Your task to perform on an android device: turn on data saver in the chrome app Image 0: 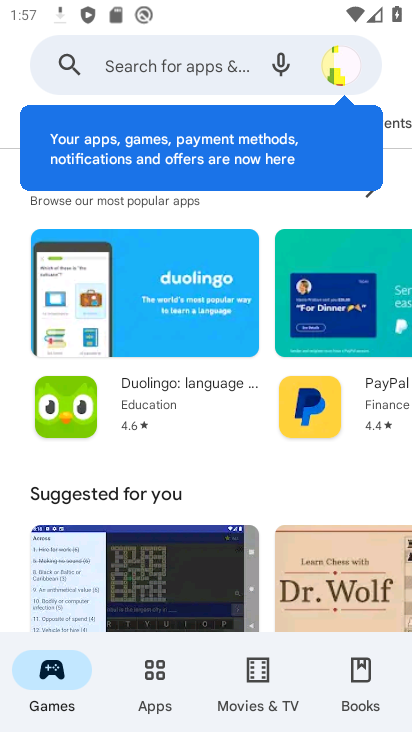
Step 0: press home button
Your task to perform on an android device: turn on data saver in the chrome app Image 1: 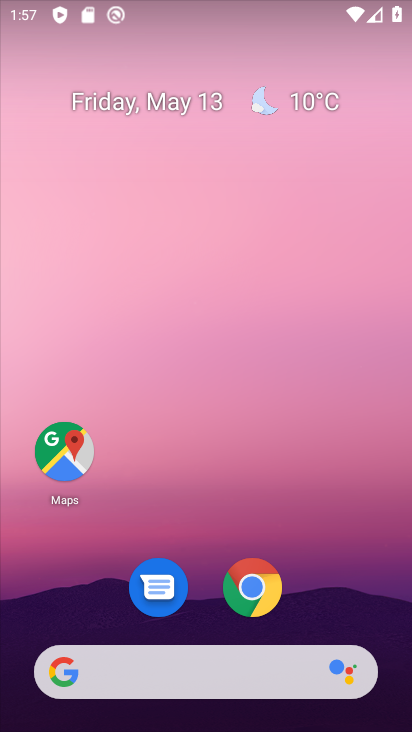
Step 1: click (253, 591)
Your task to perform on an android device: turn on data saver in the chrome app Image 2: 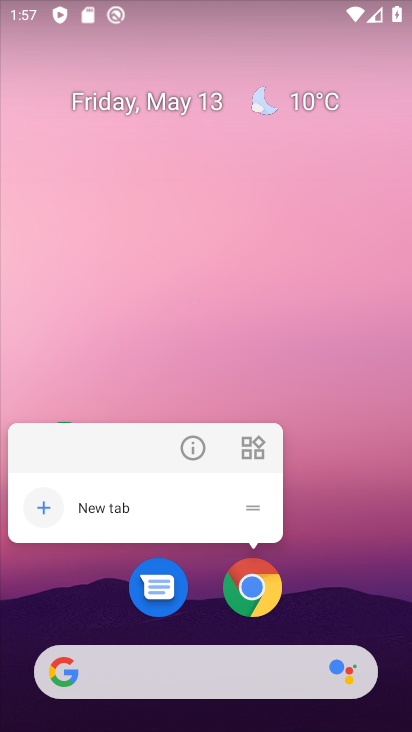
Step 2: click (253, 591)
Your task to perform on an android device: turn on data saver in the chrome app Image 3: 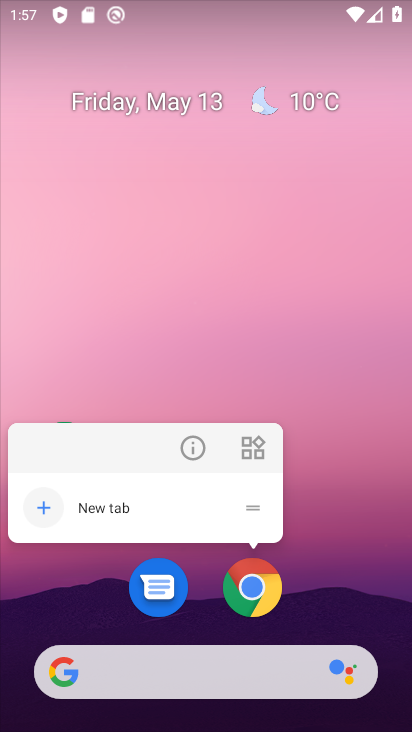
Step 3: click (253, 591)
Your task to perform on an android device: turn on data saver in the chrome app Image 4: 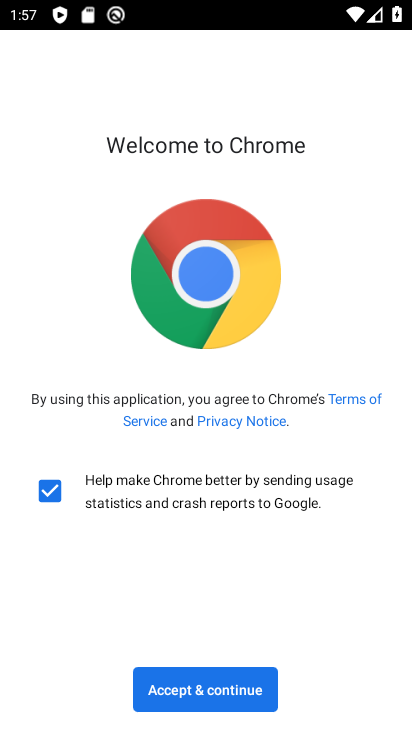
Step 4: click (200, 689)
Your task to perform on an android device: turn on data saver in the chrome app Image 5: 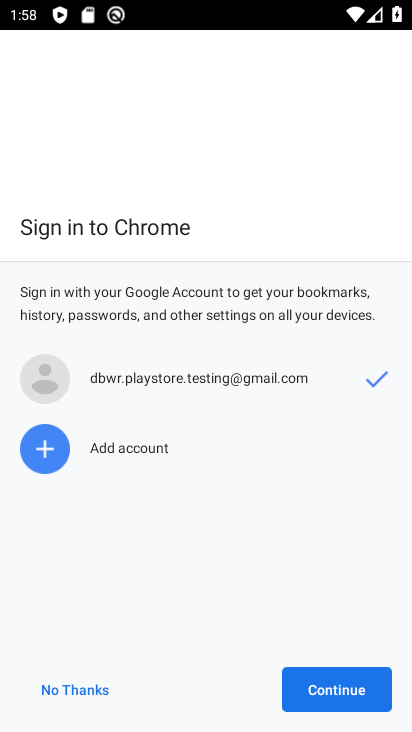
Step 5: click (348, 679)
Your task to perform on an android device: turn on data saver in the chrome app Image 6: 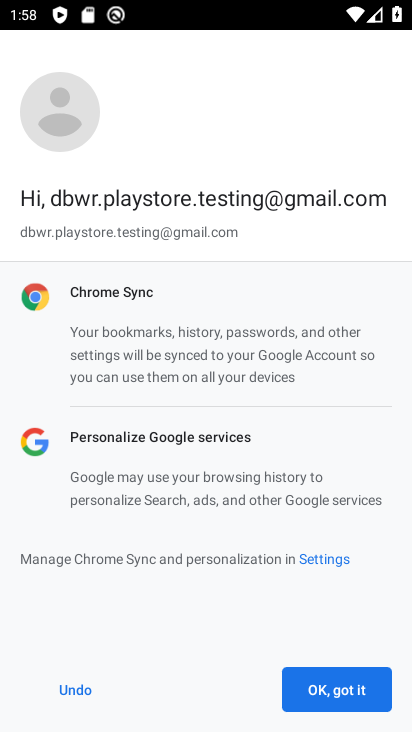
Step 6: click (330, 688)
Your task to perform on an android device: turn on data saver in the chrome app Image 7: 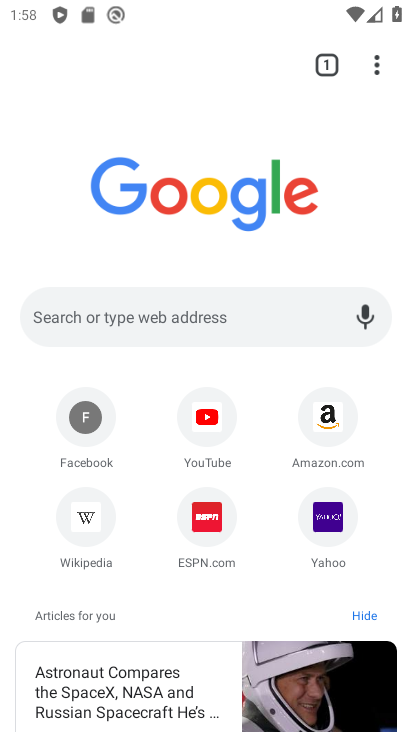
Step 7: click (372, 66)
Your task to perform on an android device: turn on data saver in the chrome app Image 8: 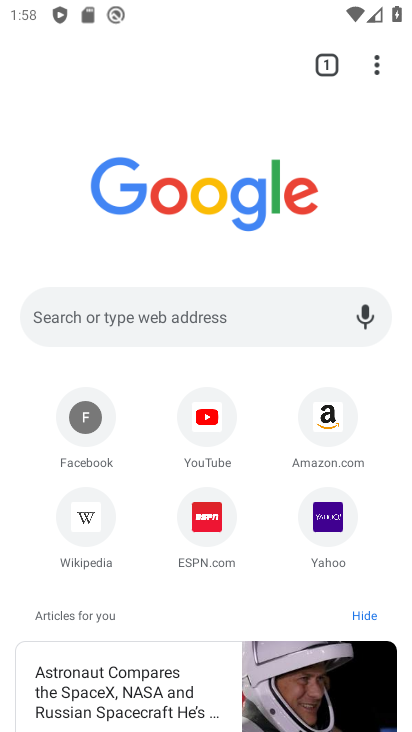
Step 8: click (375, 62)
Your task to perform on an android device: turn on data saver in the chrome app Image 9: 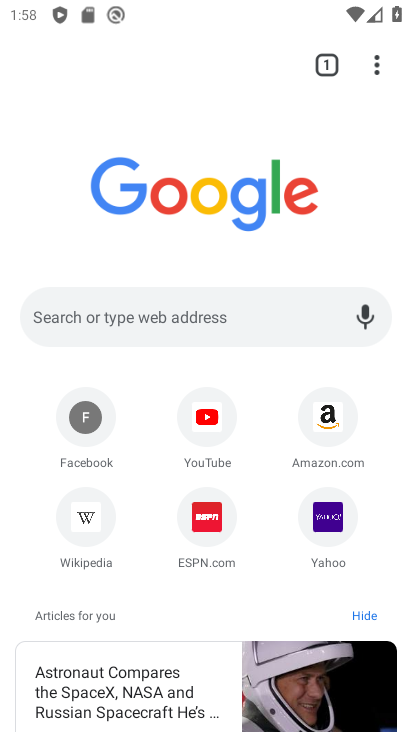
Step 9: click (375, 62)
Your task to perform on an android device: turn on data saver in the chrome app Image 10: 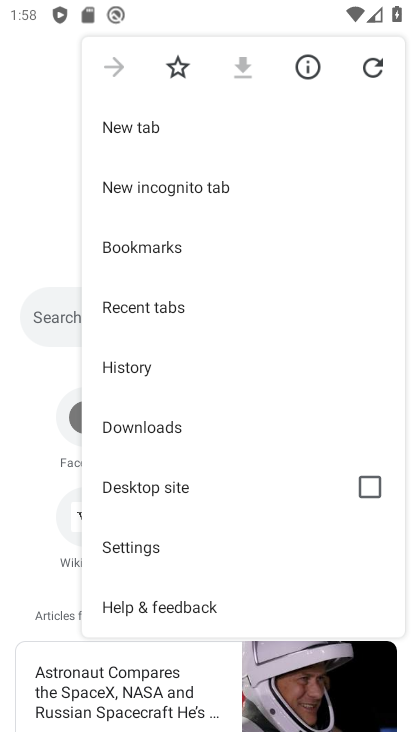
Step 10: click (143, 549)
Your task to perform on an android device: turn on data saver in the chrome app Image 11: 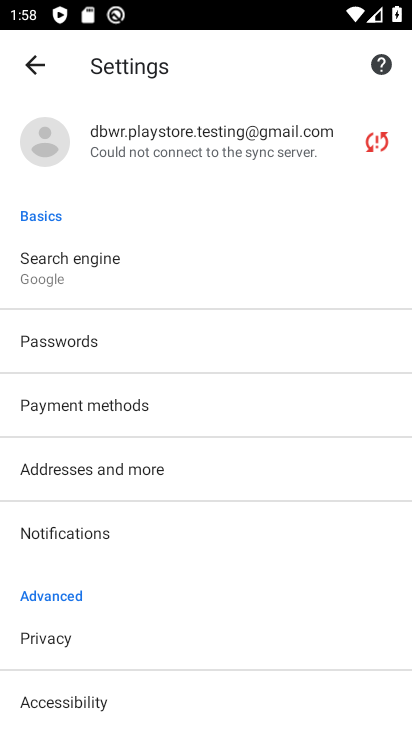
Step 11: drag from (181, 660) to (274, 264)
Your task to perform on an android device: turn on data saver in the chrome app Image 12: 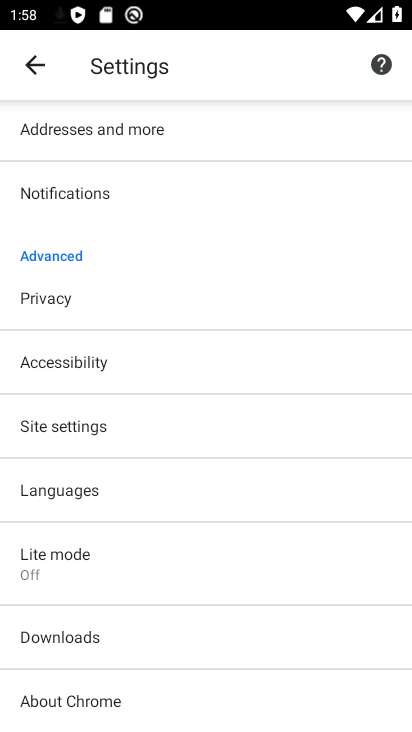
Step 12: drag from (216, 631) to (253, 290)
Your task to perform on an android device: turn on data saver in the chrome app Image 13: 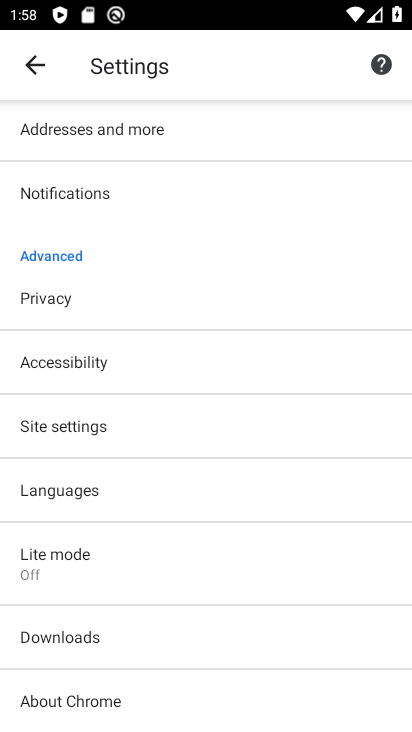
Step 13: click (122, 577)
Your task to perform on an android device: turn on data saver in the chrome app Image 14: 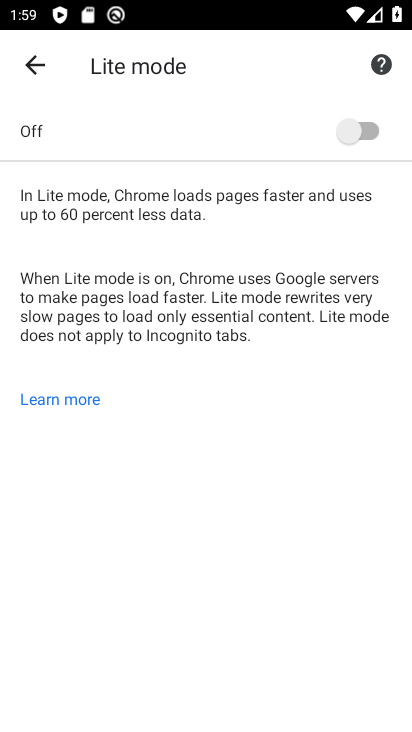
Step 14: click (382, 128)
Your task to perform on an android device: turn on data saver in the chrome app Image 15: 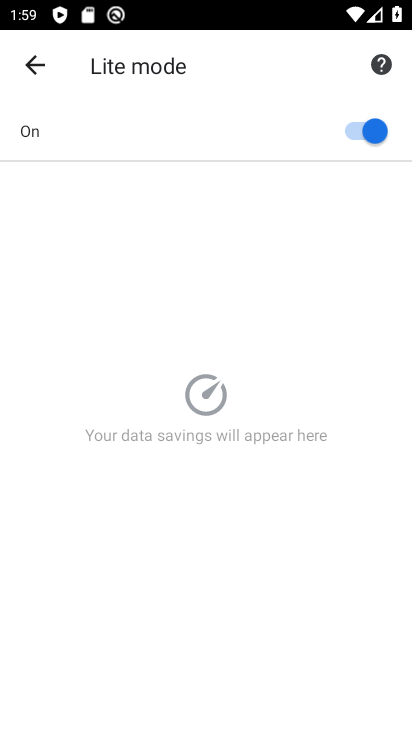
Step 15: task complete